Your task to perform on an android device: turn on javascript in the chrome app Image 0: 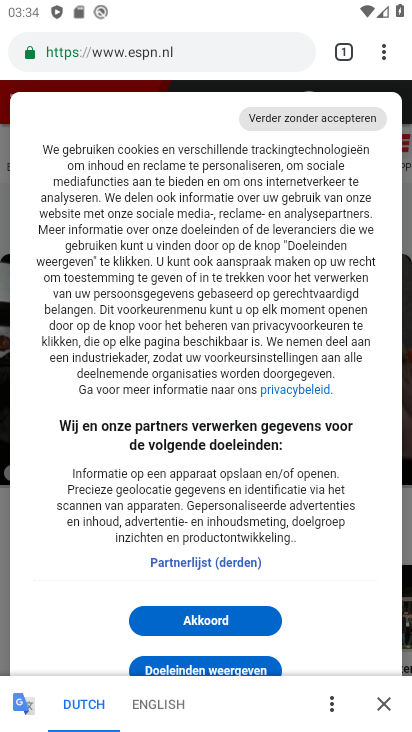
Step 0: press home button
Your task to perform on an android device: turn on javascript in the chrome app Image 1: 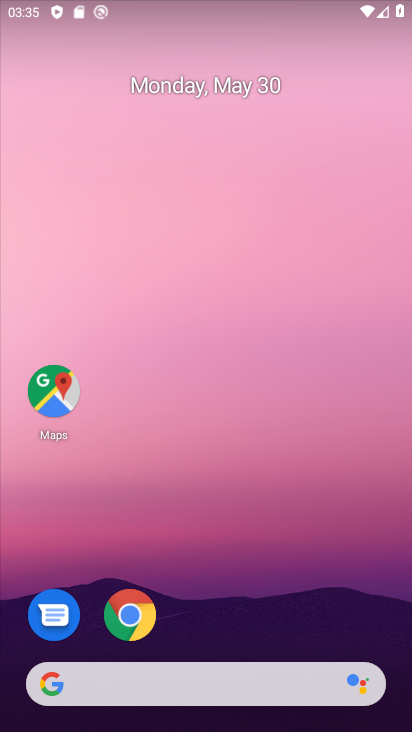
Step 1: click (130, 617)
Your task to perform on an android device: turn on javascript in the chrome app Image 2: 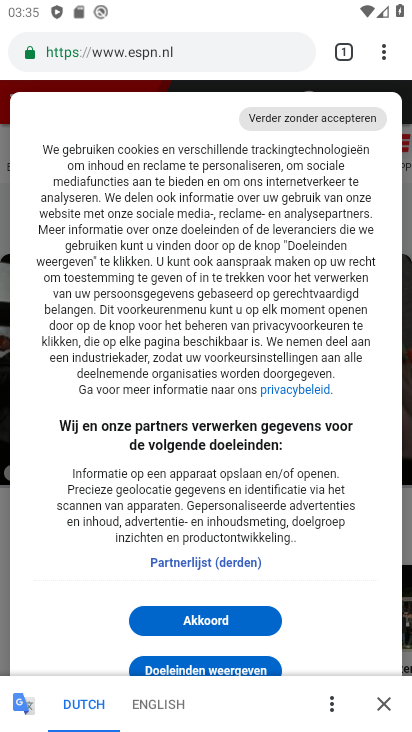
Step 2: click (384, 49)
Your task to perform on an android device: turn on javascript in the chrome app Image 3: 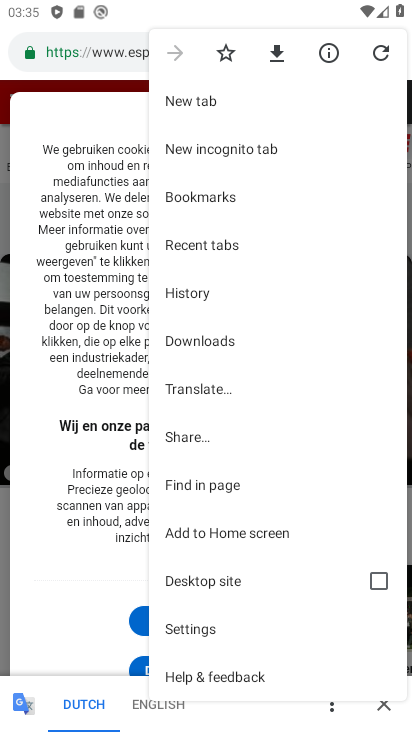
Step 3: drag from (215, 512) to (239, 429)
Your task to perform on an android device: turn on javascript in the chrome app Image 4: 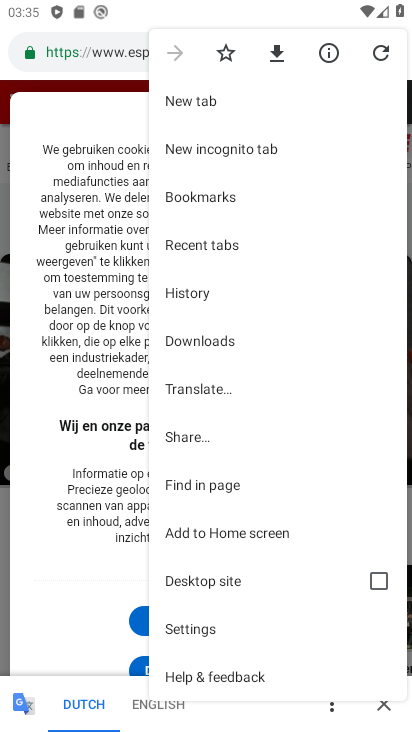
Step 4: click (206, 635)
Your task to perform on an android device: turn on javascript in the chrome app Image 5: 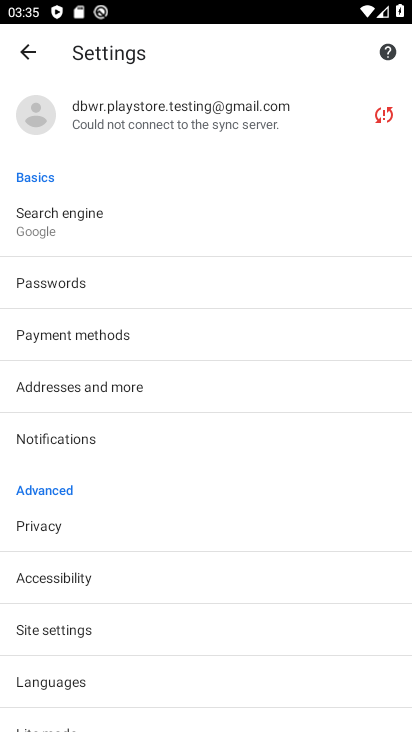
Step 5: drag from (91, 514) to (134, 418)
Your task to perform on an android device: turn on javascript in the chrome app Image 6: 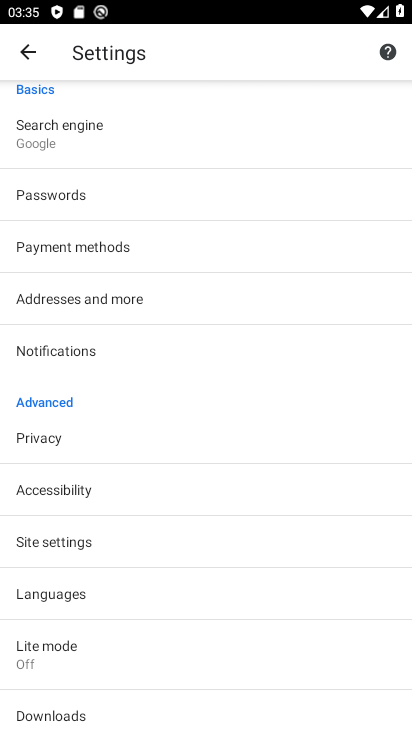
Step 6: click (81, 544)
Your task to perform on an android device: turn on javascript in the chrome app Image 7: 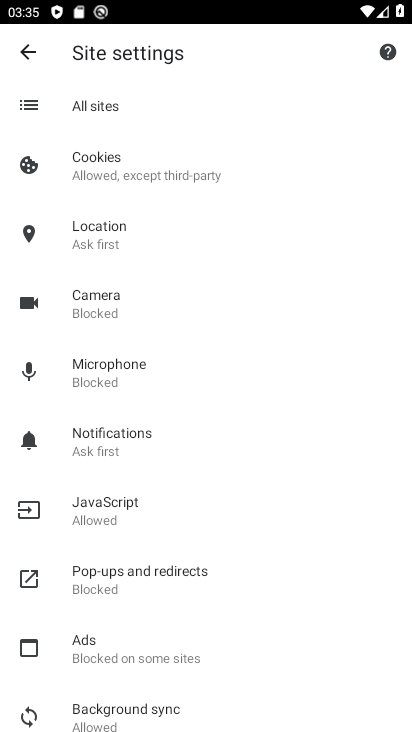
Step 7: drag from (131, 482) to (136, 389)
Your task to perform on an android device: turn on javascript in the chrome app Image 8: 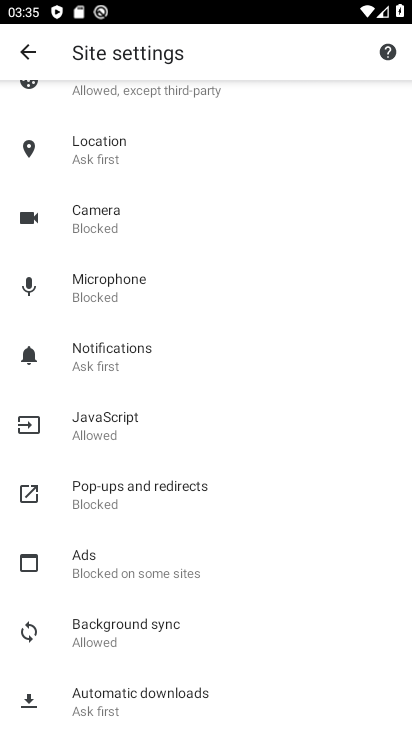
Step 8: click (131, 420)
Your task to perform on an android device: turn on javascript in the chrome app Image 9: 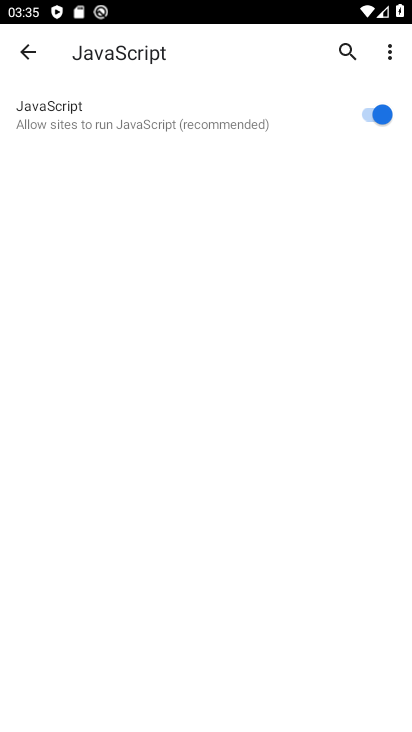
Step 9: task complete